Your task to perform on an android device: change text size in settings app Image 0: 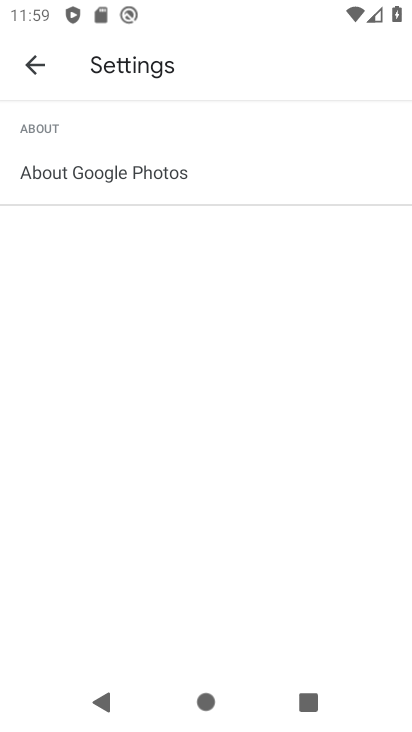
Step 0: press home button
Your task to perform on an android device: change text size in settings app Image 1: 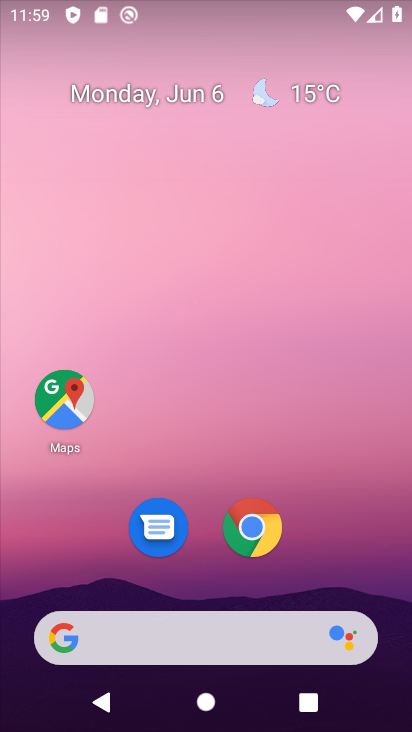
Step 1: drag from (234, 621) to (234, 81)
Your task to perform on an android device: change text size in settings app Image 2: 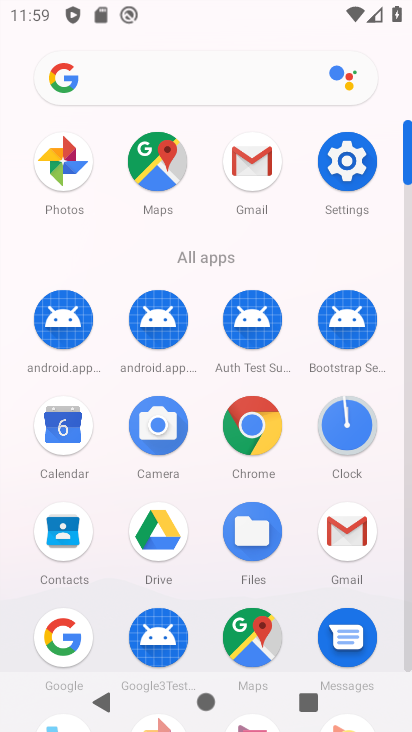
Step 2: click (339, 168)
Your task to perform on an android device: change text size in settings app Image 3: 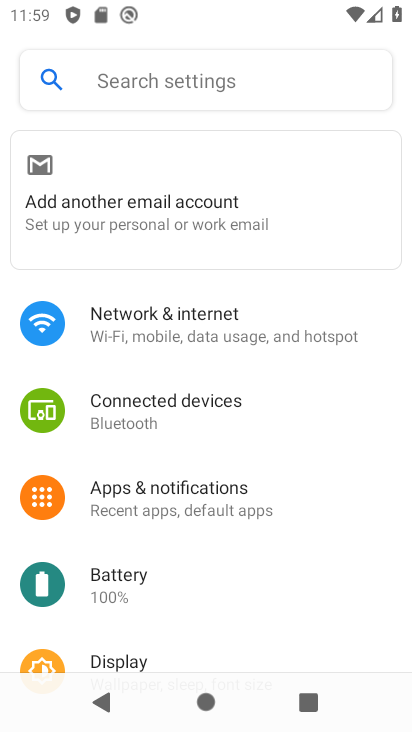
Step 3: drag from (195, 630) to (195, 222)
Your task to perform on an android device: change text size in settings app Image 4: 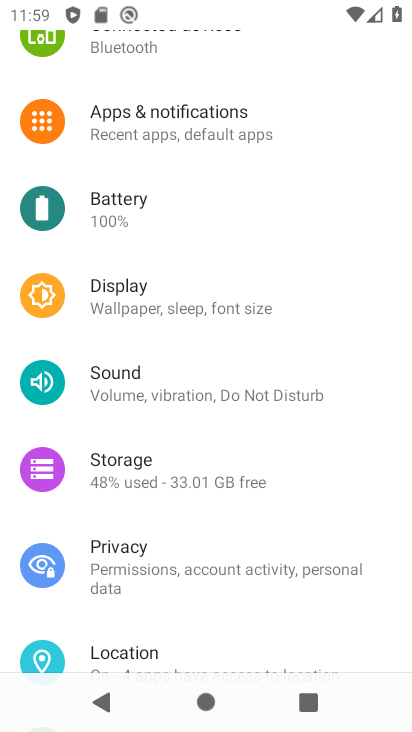
Step 4: drag from (185, 638) to (180, 161)
Your task to perform on an android device: change text size in settings app Image 5: 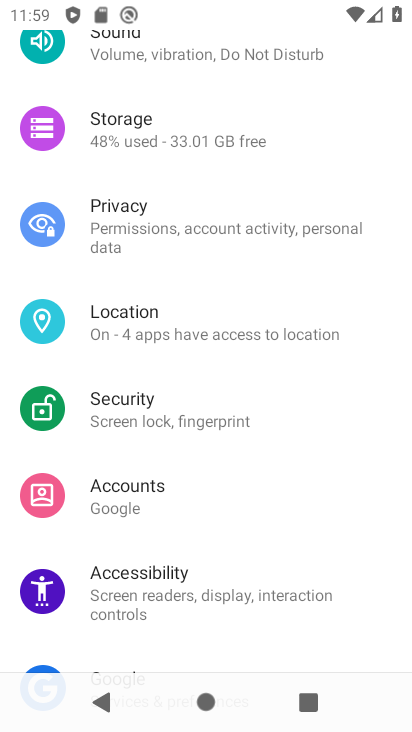
Step 5: drag from (187, 546) to (171, 314)
Your task to perform on an android device: change text size in settings app Image 6: 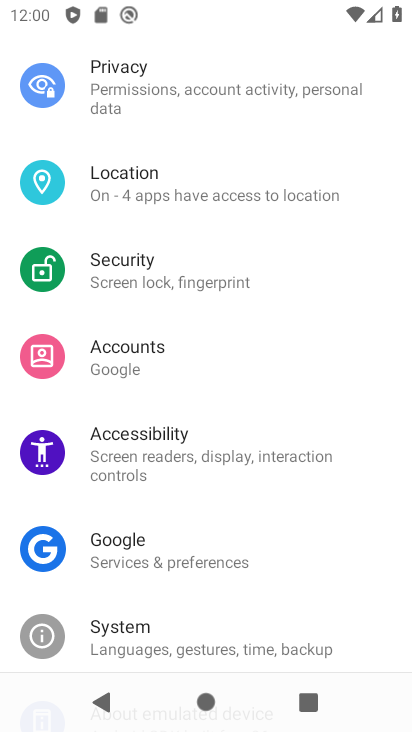
Step 6: click (148, 460)
Your task to perform on an android device: change text size in settings app Image 7: 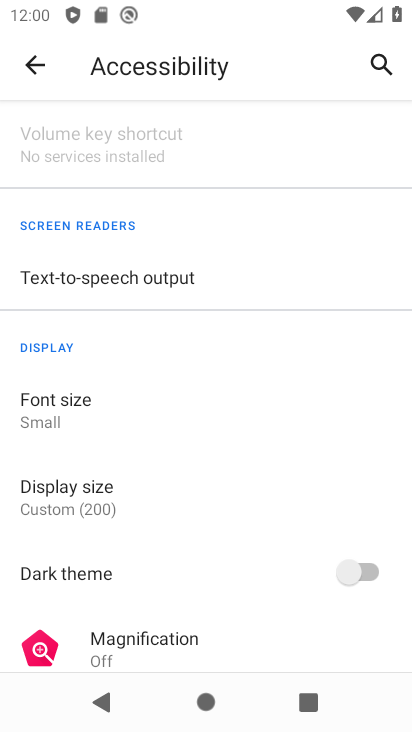
Step 7: click (43, 421)
Your task to perform on an android device: change text size in settings app Image 8: 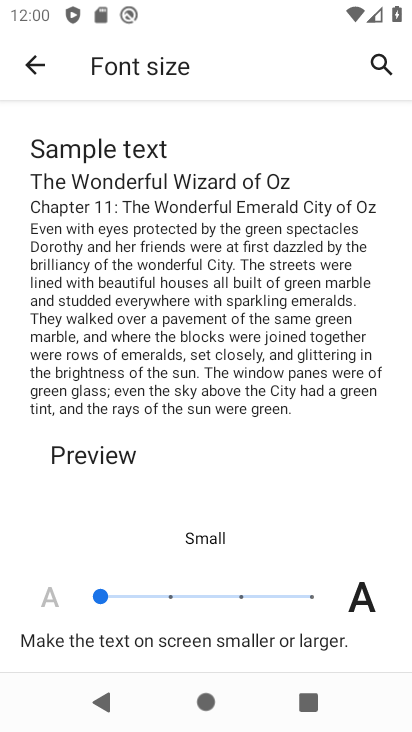
Step 8: click (161, 594)
Your task to perform on an android device: change text size in settings app Image 9: 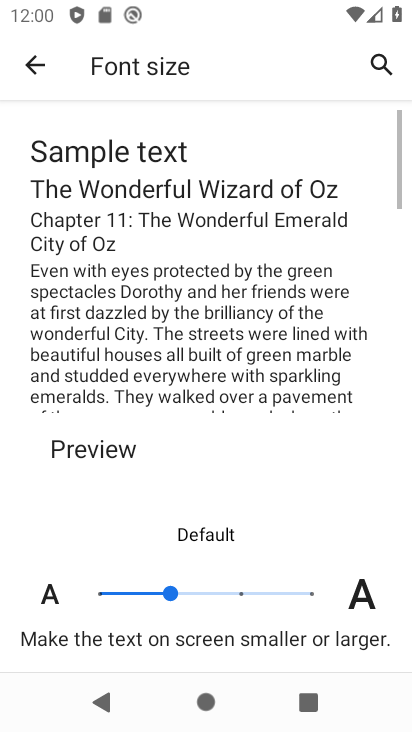
Step 9: task complete